Your task to perform on an android device: change text size in settings app Image 0: 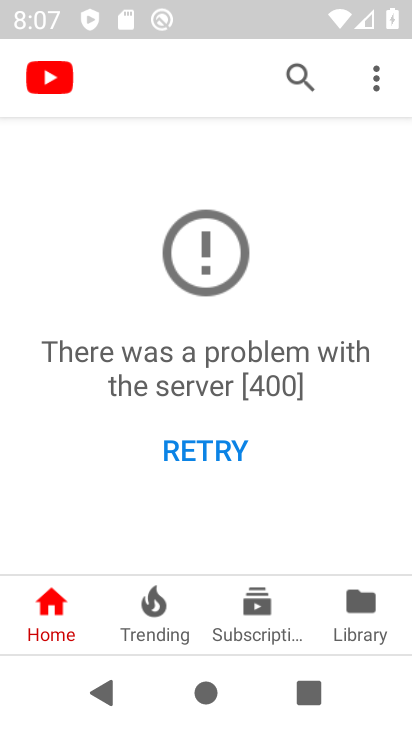
Step 0: press home button
Your task to perform on an android device: change text size in settings app Image 1: 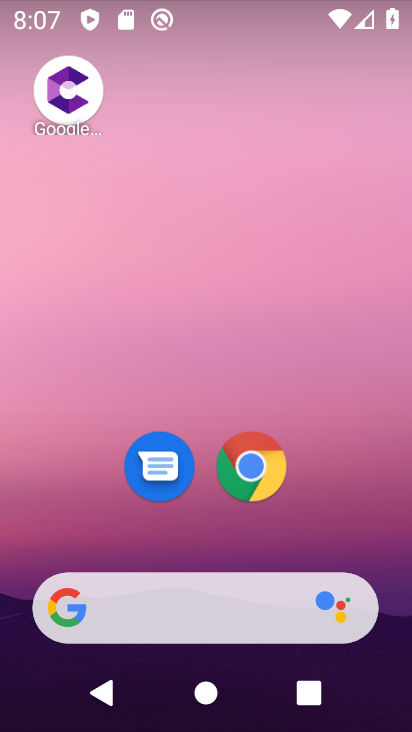
Step 1: drag from (346, 464) to (200, 21)
Your task to perform on an android device: change text size in settings app Image 2: 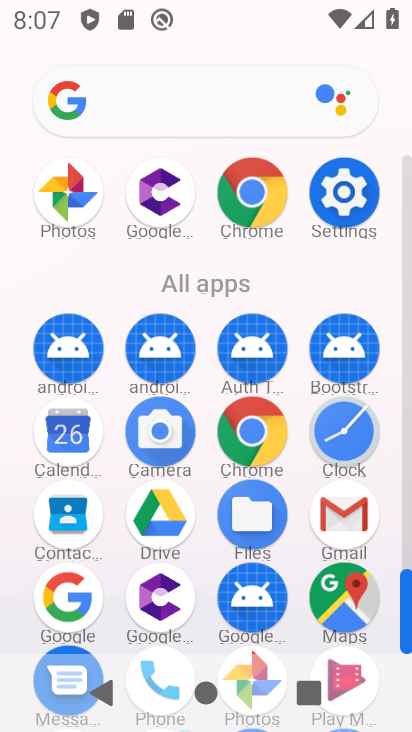
Step 2: click (338, 189)
Your task to perform on an android device: change text size in settings app Image 3: 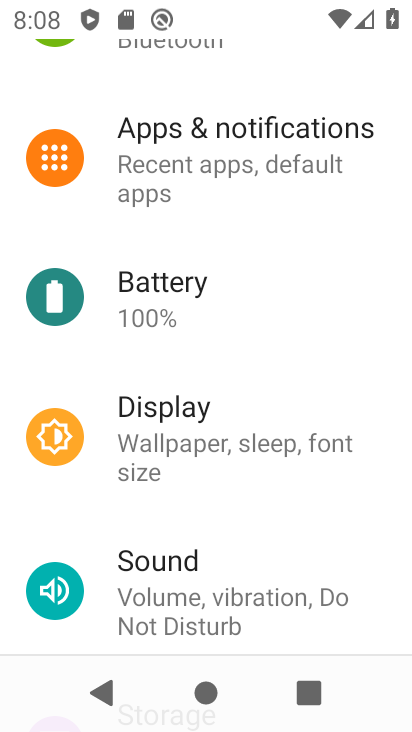
Step 3: drag from (234, 518) to (177, 229)
Your task to perform on an android device: change text size in settings app Image 4: 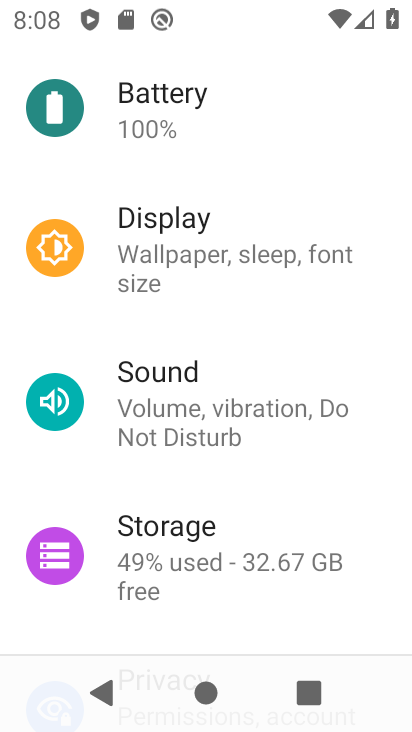
Step 4: click (161, 216)
Your task to perform on an android device: change text size in settings app Image 5: 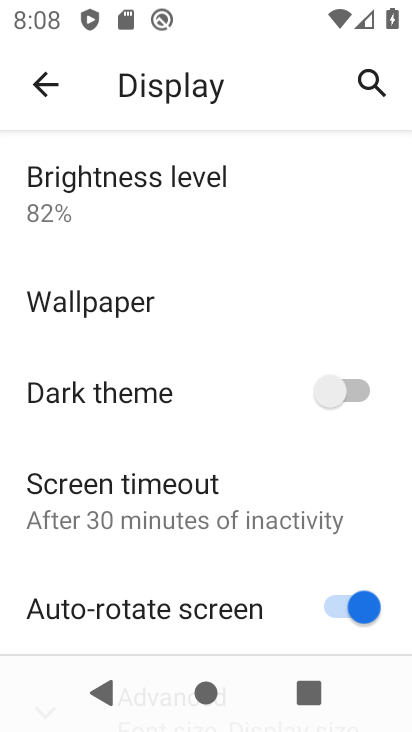
Step 5: drag from (245, 417) to (177, 74)
Your task to perform on an android device: change text size in settings app Image 6: 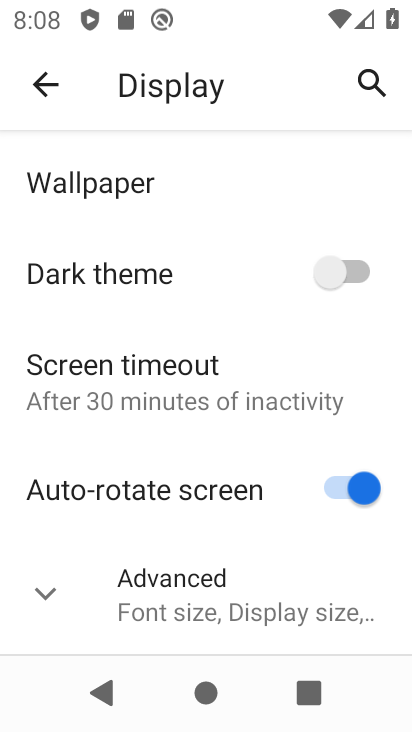
Step 6: click (51, 593)
Your task to perform on an android device: change text size in settings app Image 7: 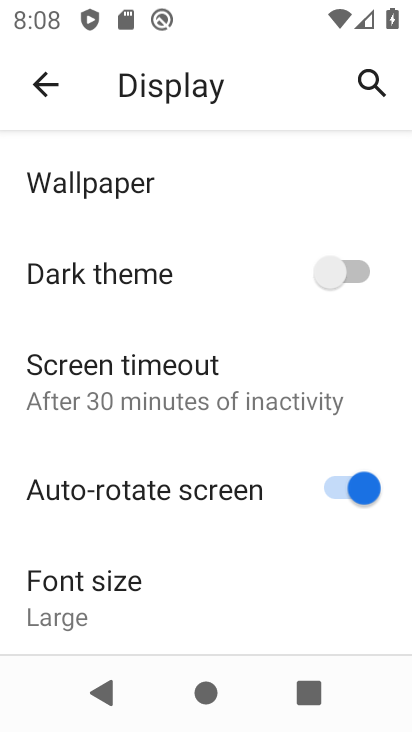
Step 7: drag from (210, 537) to (183, 171)
Your task to perform on an android device: change text size in settings app Image 8: 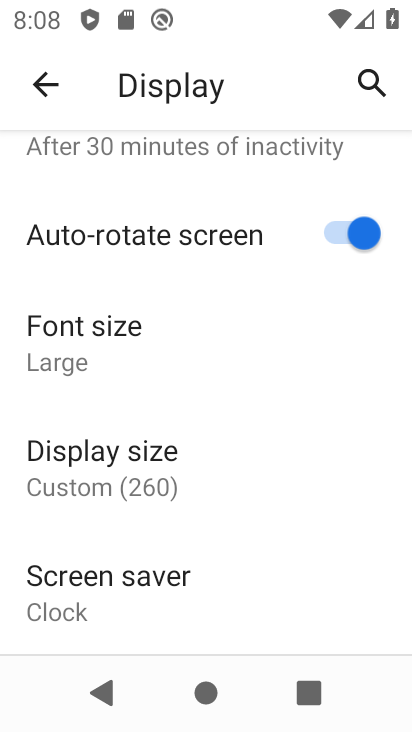
Step 8: click (101, 343)
Your task to perform on an android device: change text size in settings app Image 9: 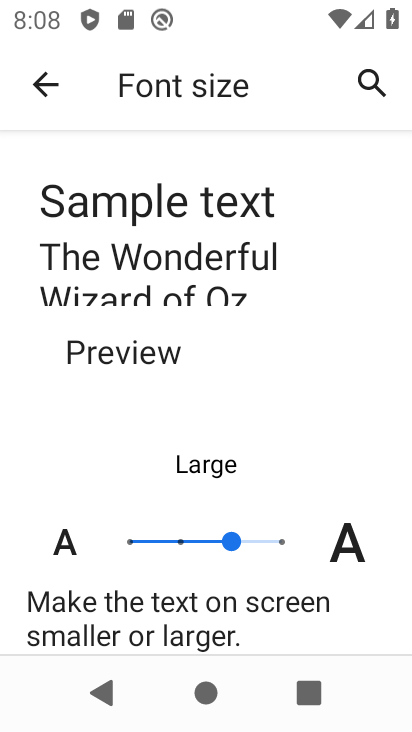
Step 9: click (183, 548)
Your task to perform on an android device: change text size in settings app Image 10: 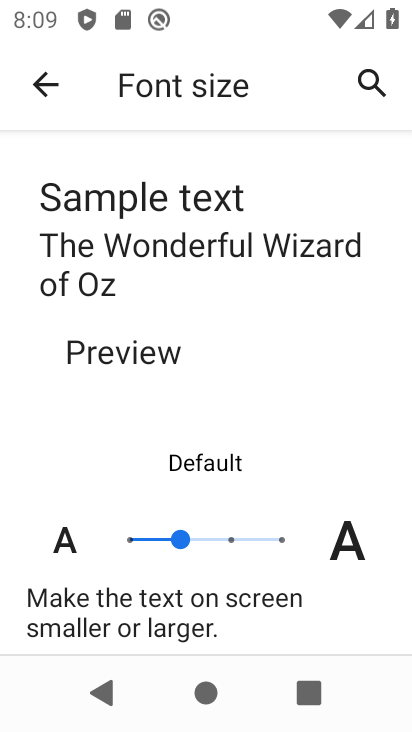
Step 10: task complete